Your task to perform on an android device: install app "McDonald's" Image 0: 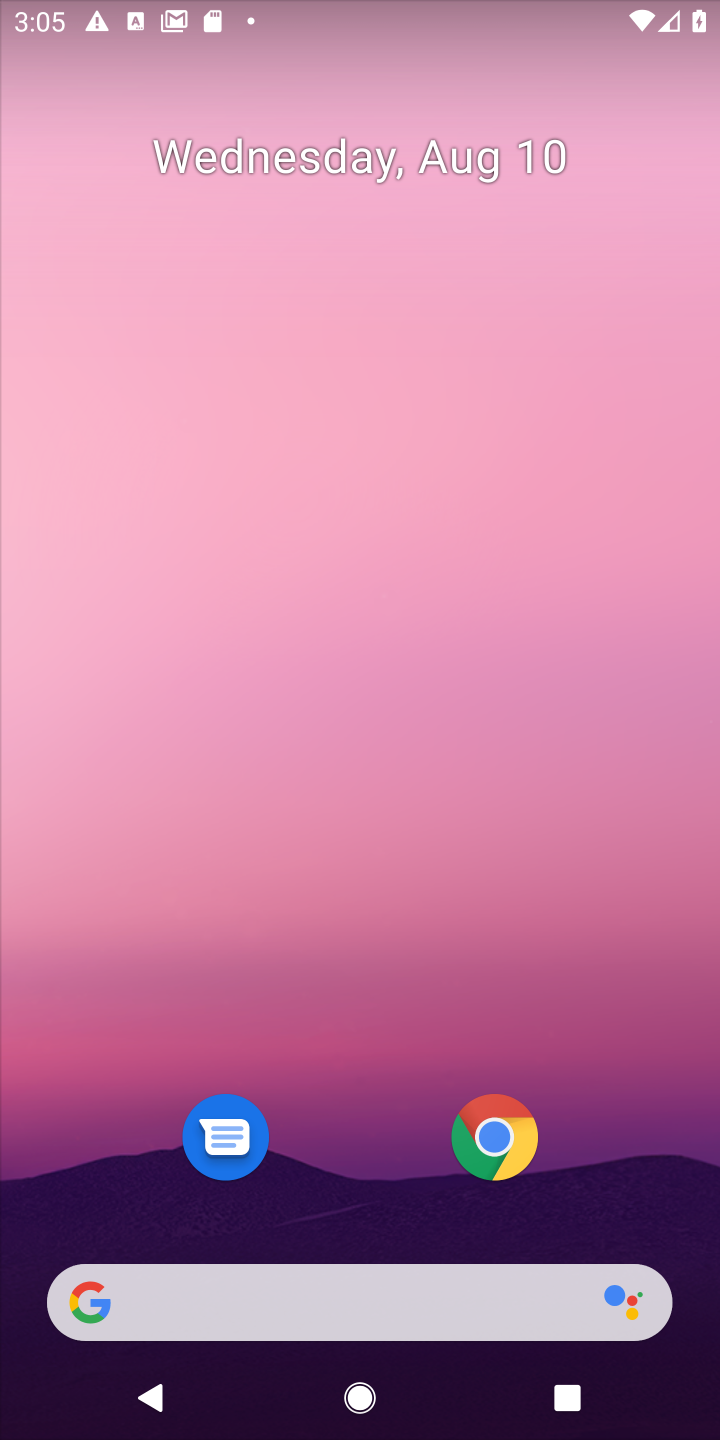
Step 0: drag from (300, 1098) to (394, 418)
Your task to perform on an android device: install app "McDonald's" Image 1: 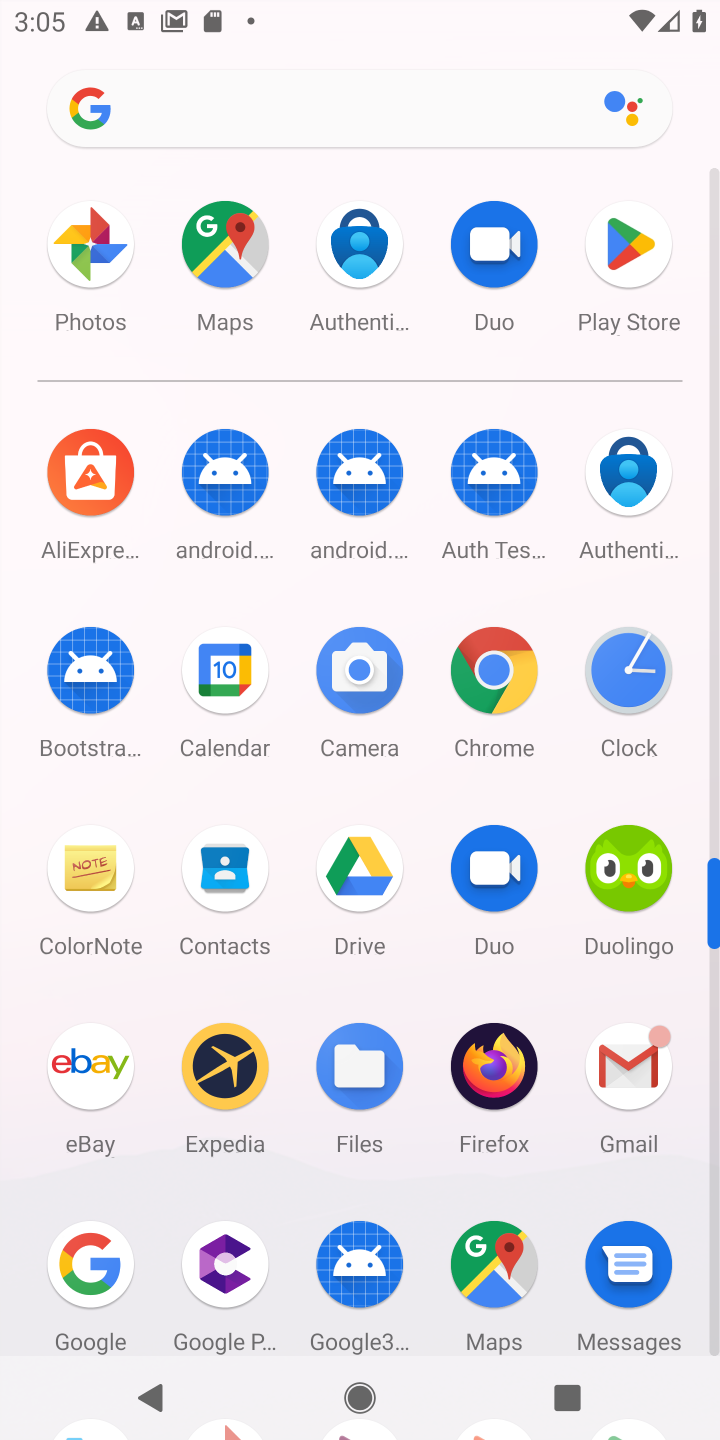
Step 1: click (636, 252)
Your task to perform on an android device: install app "McDonald's" Image 2: 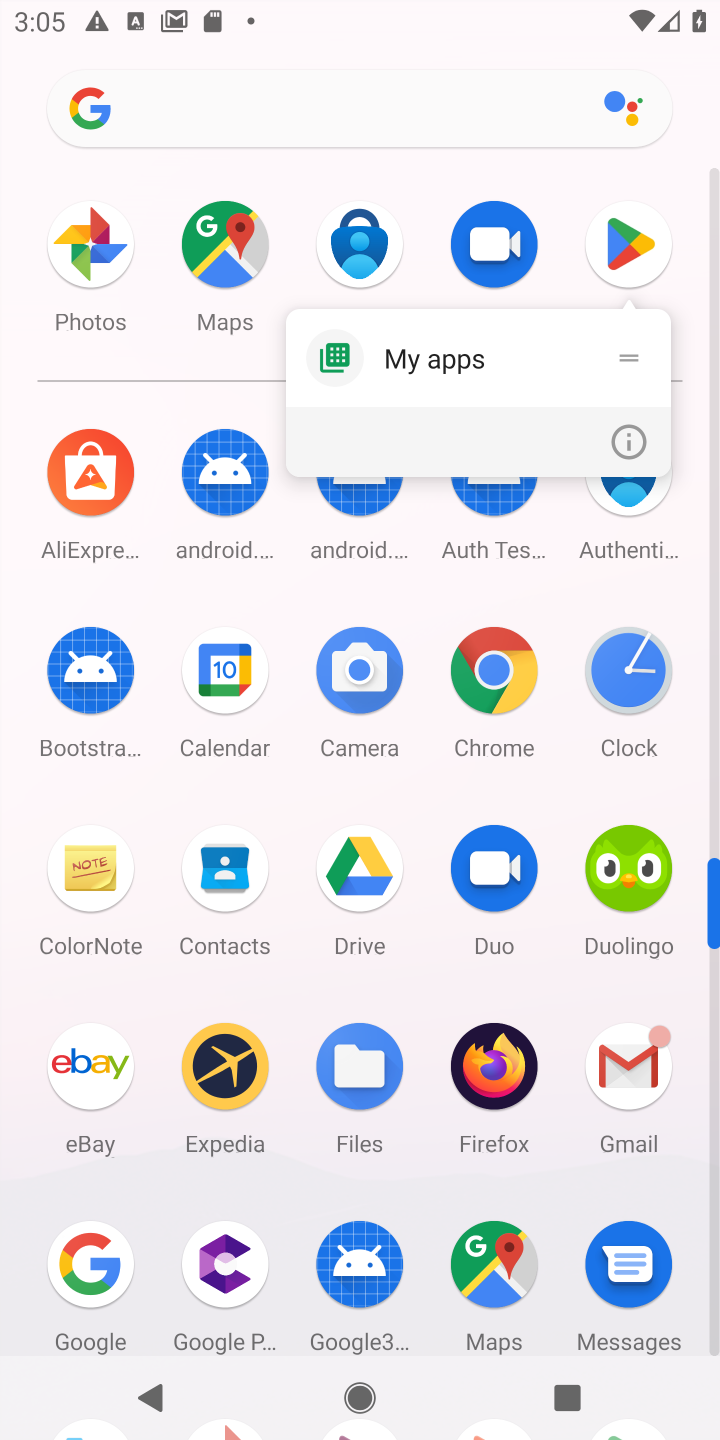
Step 2: click (635, 233)
Your task to perform on an android device: install app "McDonald's" Image 3: 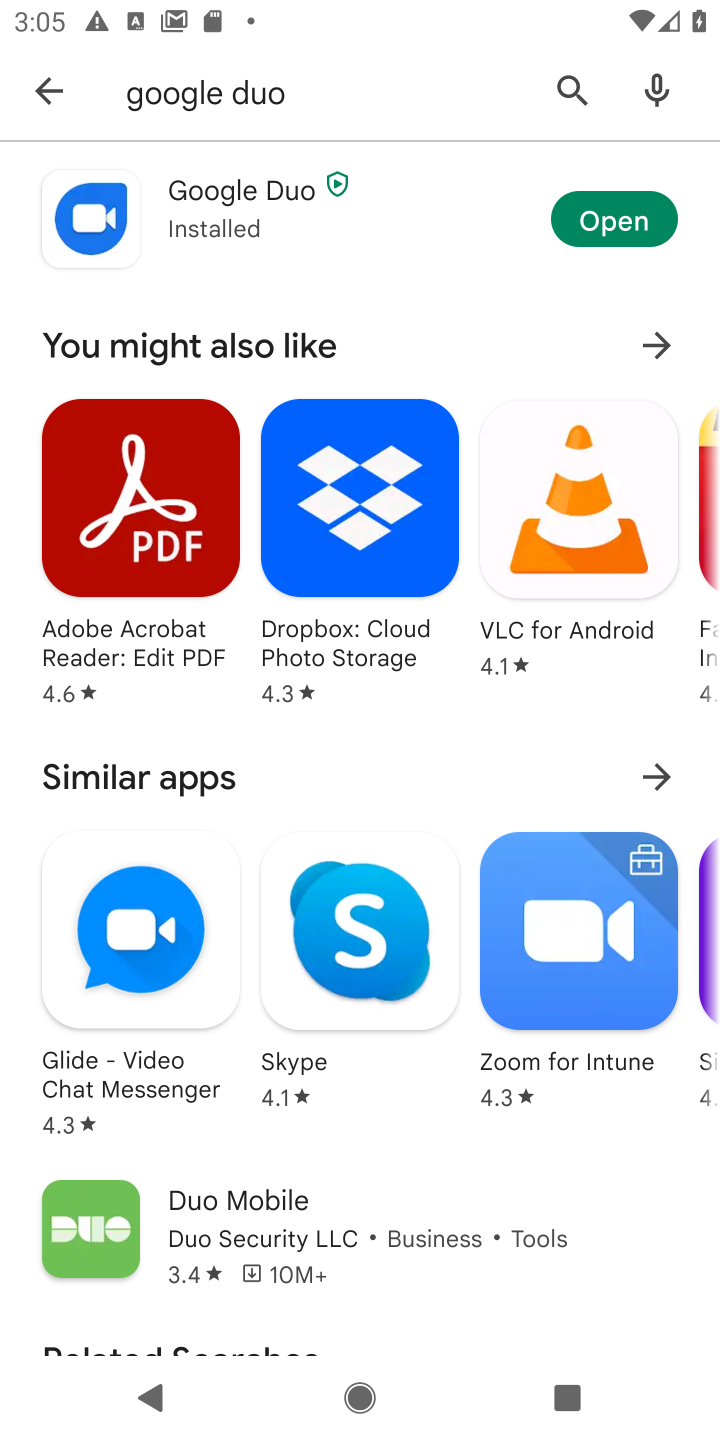
Step 3: click (298, 93)
Your task to perform on an android device: install app "McDonald's" Image 4: 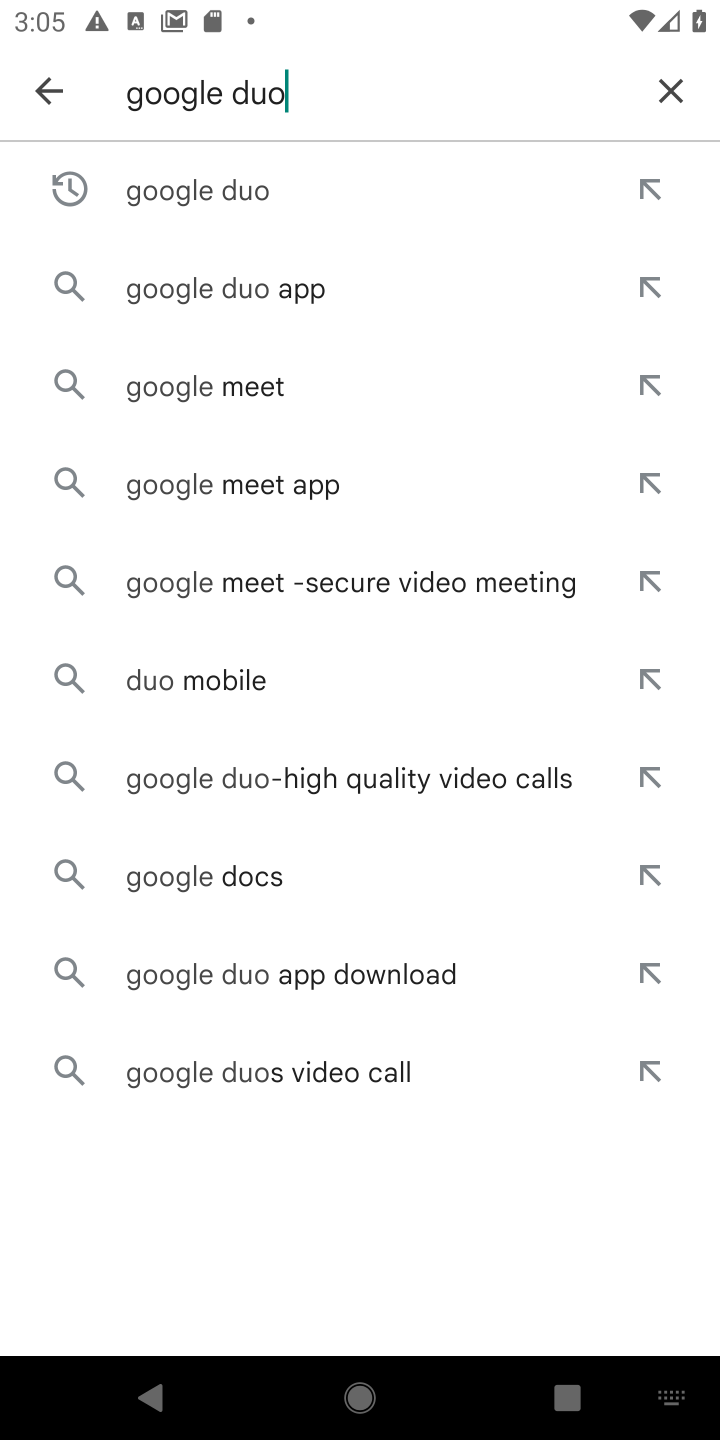
Step 4: click (673, 91)
Your task to perform on an android device: install app "McDonald's" Image 5: 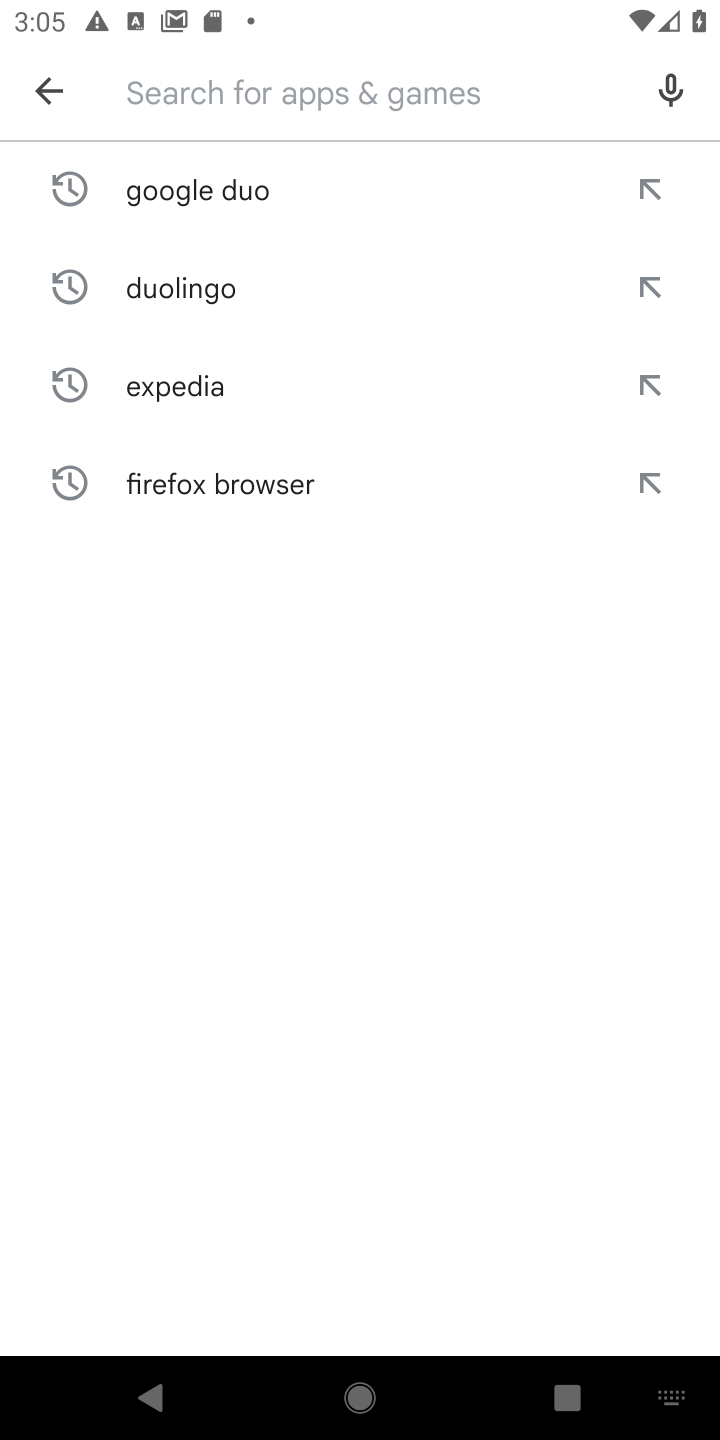
Step 5: type "McDonalds"
Your task to perform on an android device: install app "McDonald's" Image 6: 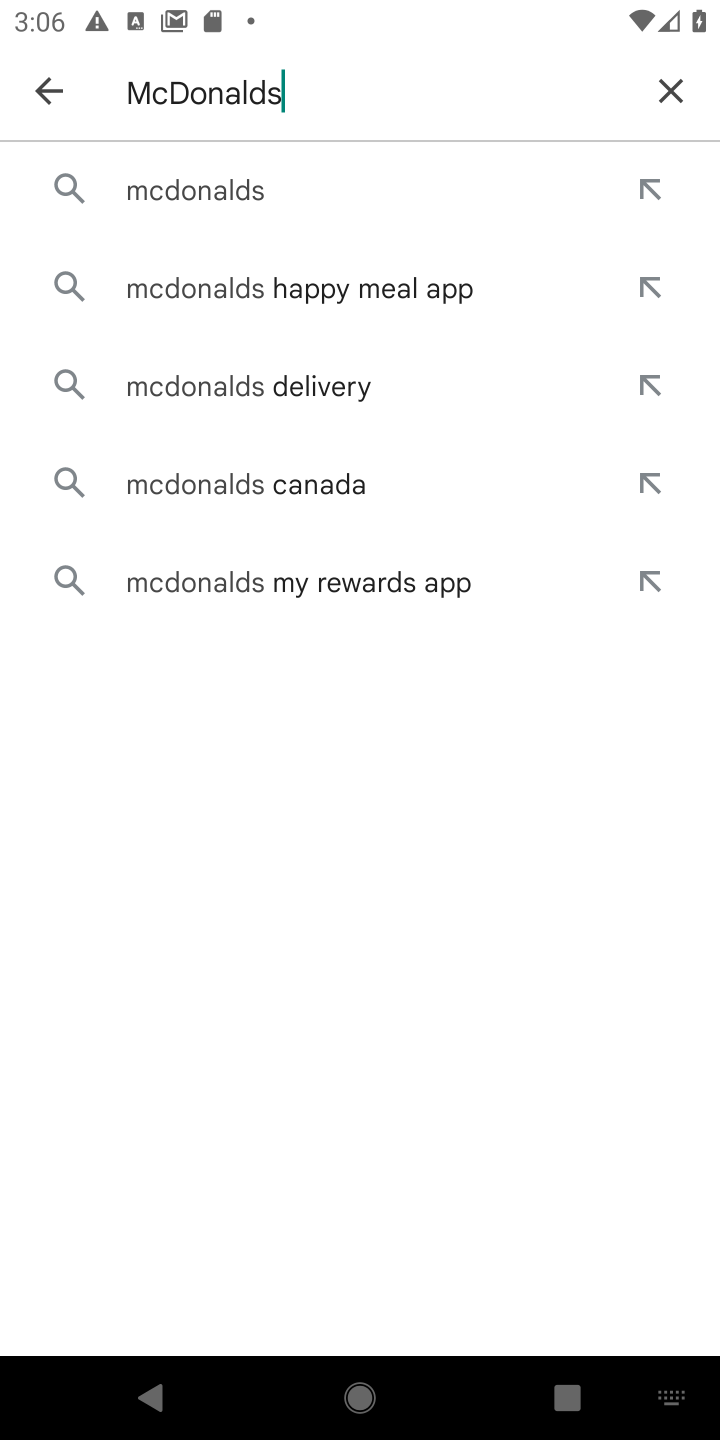
Step 6: click (200, 206)
Your task to perform on an android device: install app "McDonald's" Image 7: 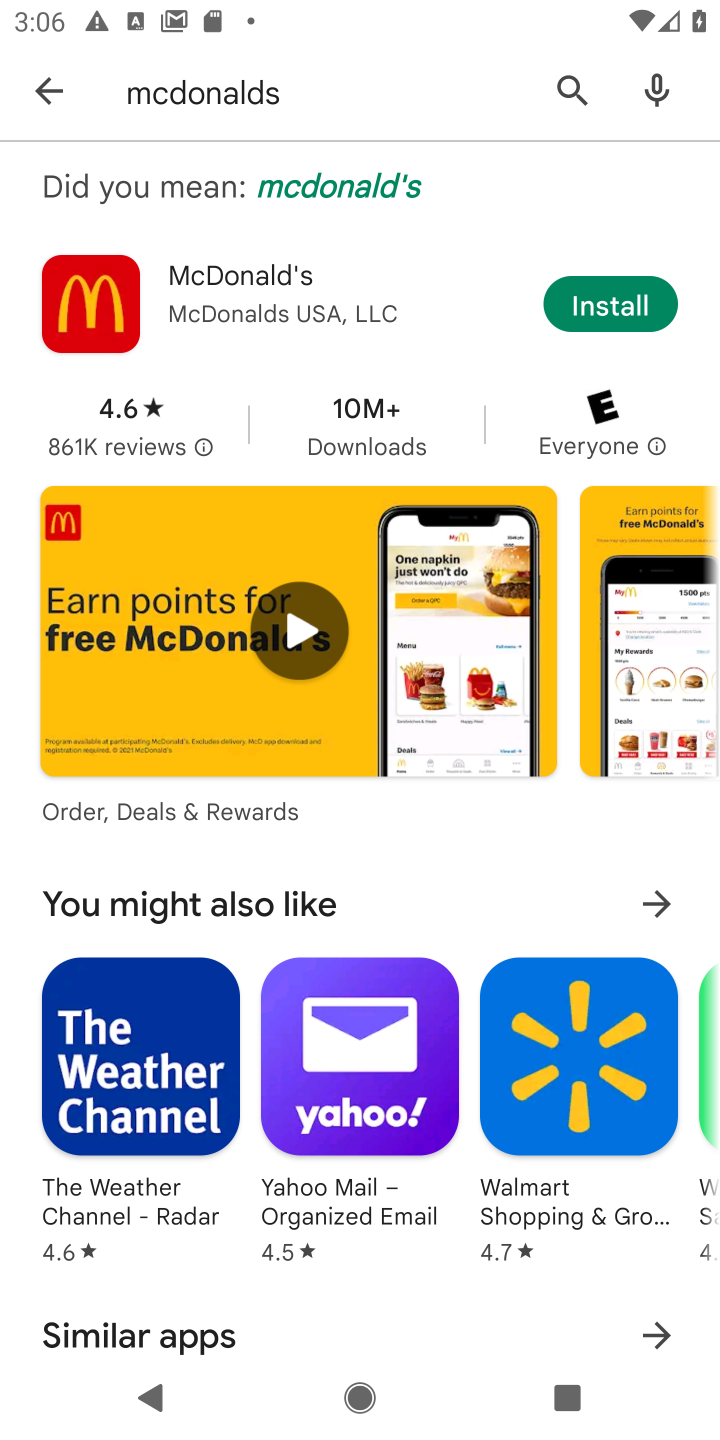
Step 7: click (656, 295)
Your task to perform on an android device: install app "McDonald's" Image 8: 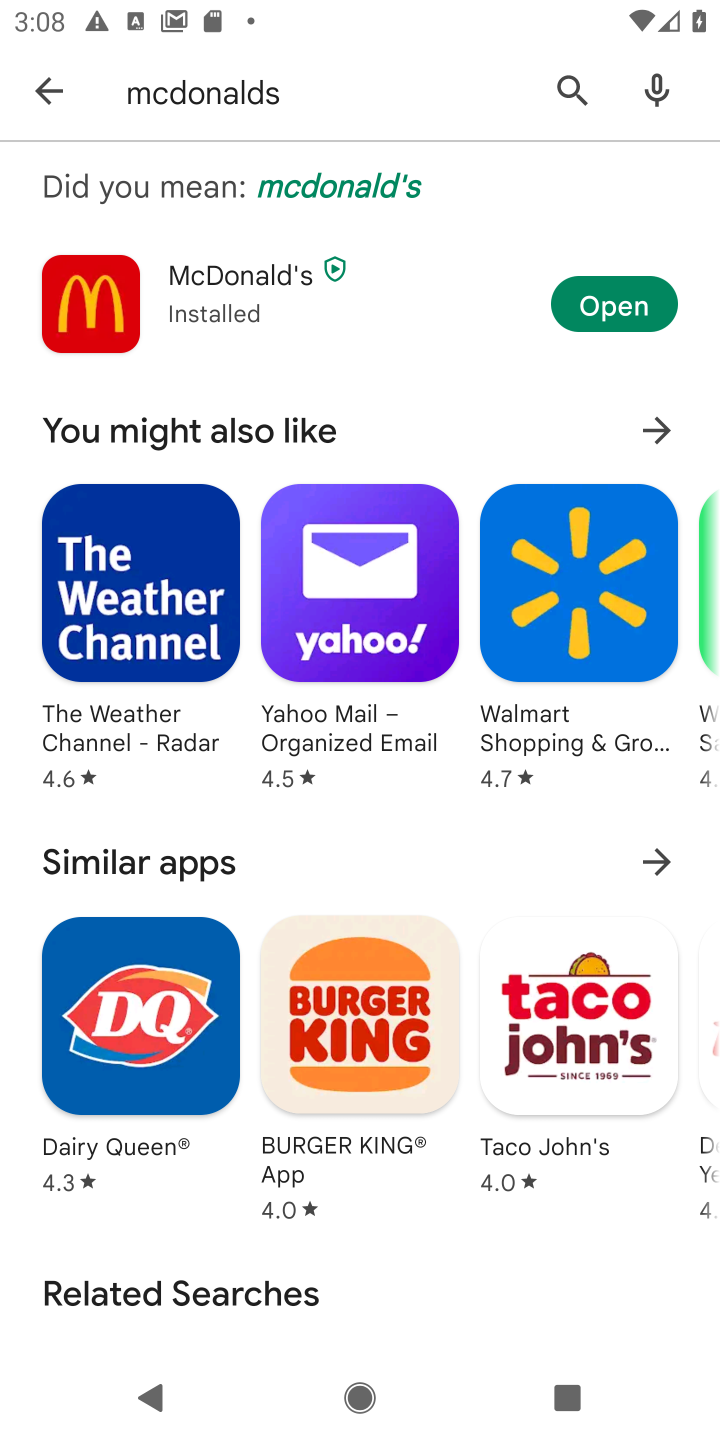
Step 8: task complete